Your task to perform on an android device: toggle sleep mode Image 0: 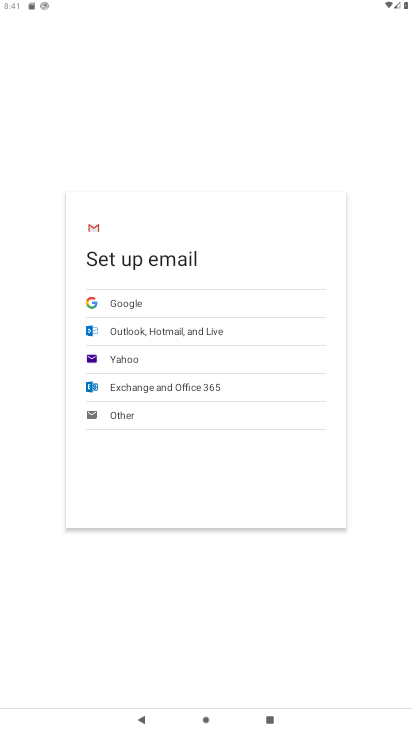
Step 0: press home button
Your task to perform on an android device: toggle sleep mode Image 1: 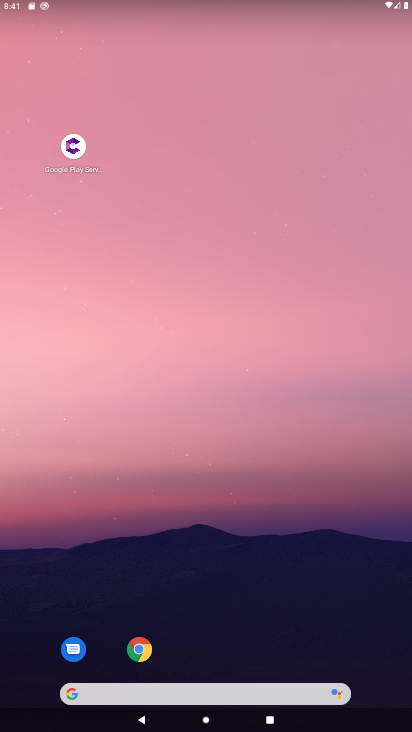
Step 1: drag from (211, 655) to (266, 124)
Your task to perform on an android device: toggle sleep mode Image 2: 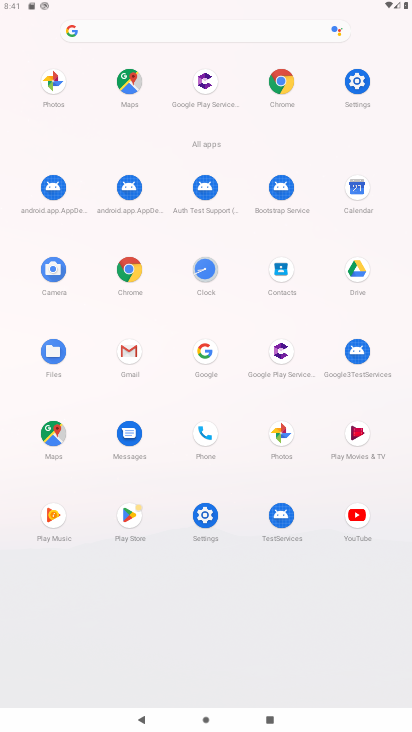
Step 2: click (357, 81)
Your task to perform on an android device: toggle sleep mode Image 3: 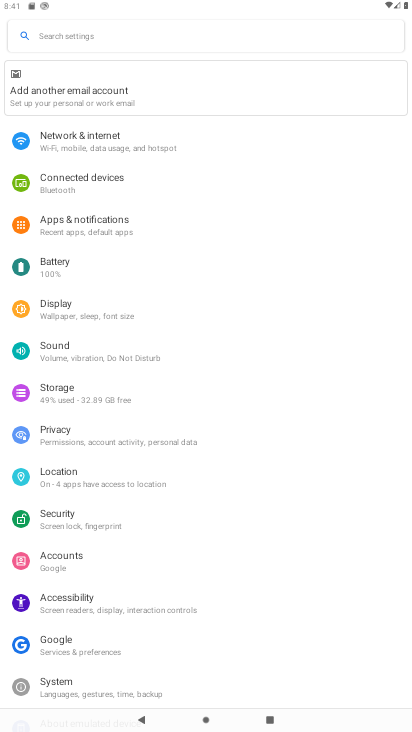
Step 3: click (86, 306)
Your task to perform on an android device: toggle sleep mode Image 4: 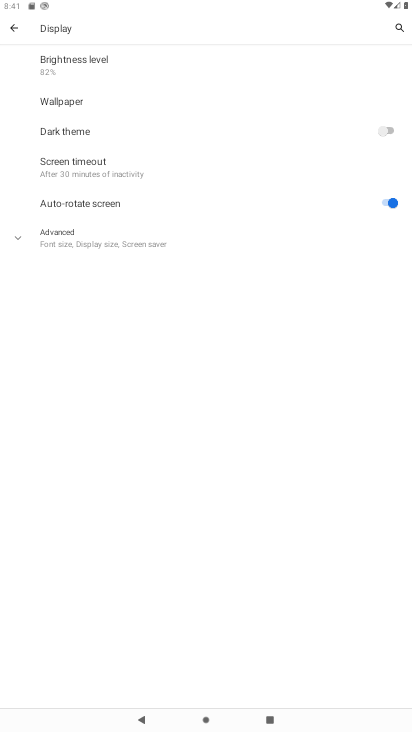
Step 4: click (59, 159)
Your task to perform on an android device: toggle sleep mode Image 5: 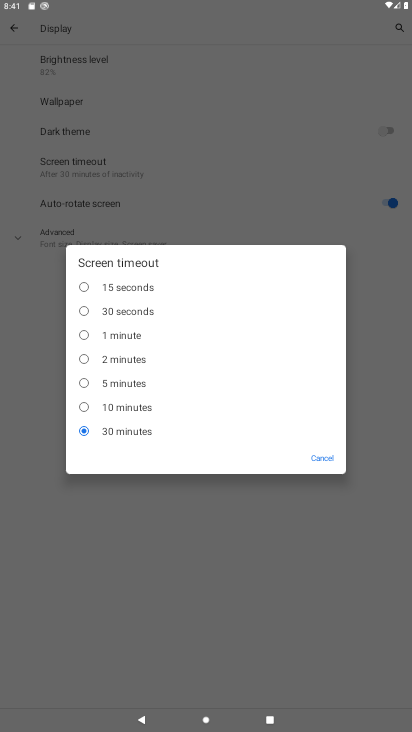
Step 5: click (84, 378)
Your task to perform on an android device: toggle sleep mode Image 6: 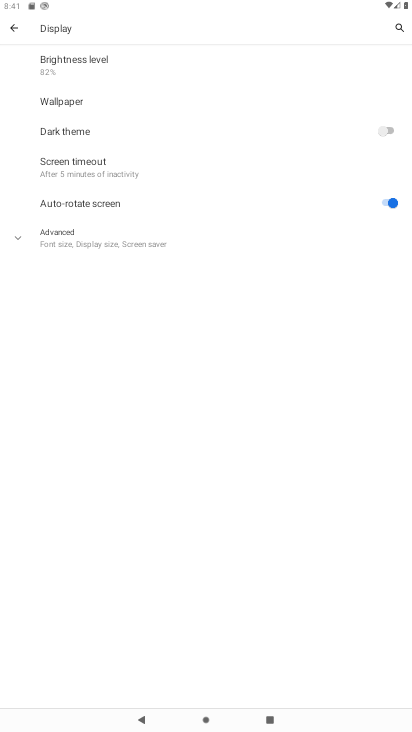
Step 6: task complete